Your task to perform on an android device: Open sound settings Image 0: 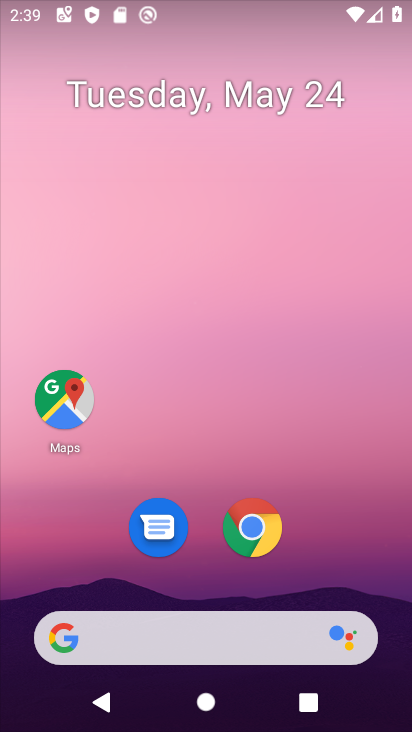
Step 0: drag from (258, 719) to (128, 196)
Your task to perform on an android device: Open sound settings Image 1: 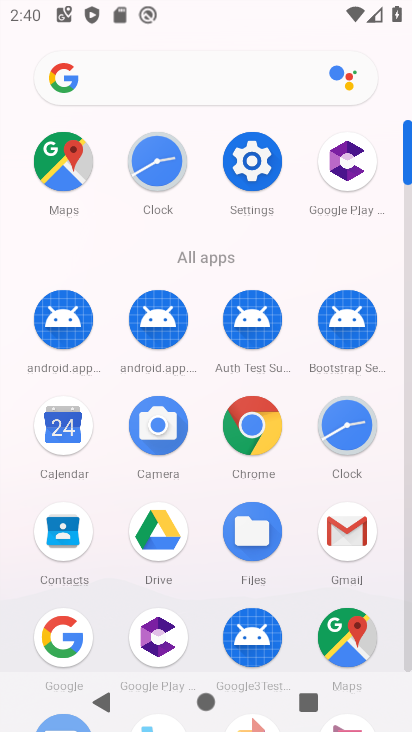
Step 1: click (259, 167)
Your task to perform on an android device: Open sound settings Image 2: 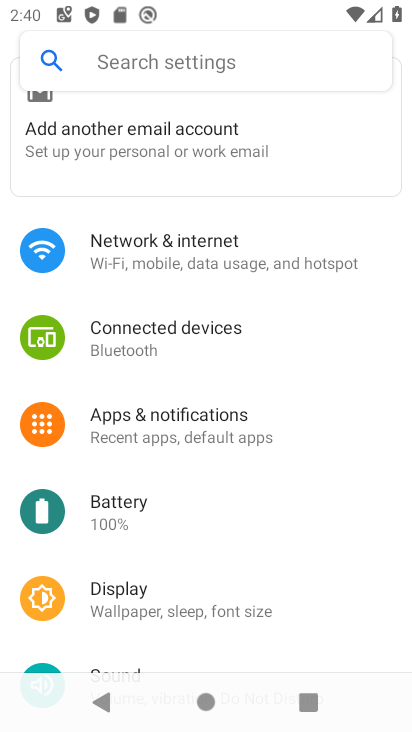
Step 2: drag from (143, 509) to (117, 288)
Your task to perform on an android device: Open sound settings Image 3: 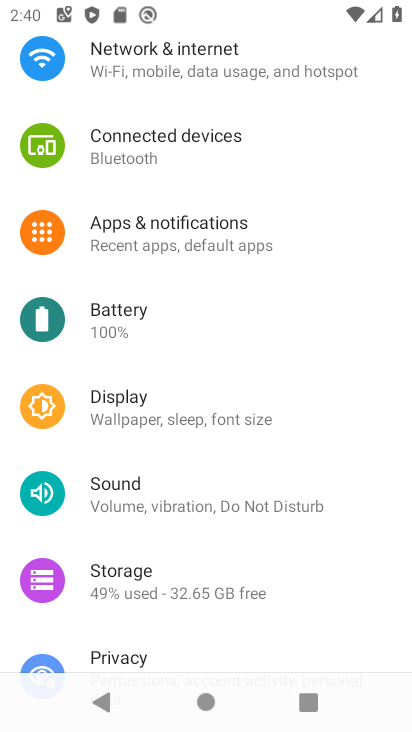
Step 3: drag from (156, 463) to (156, 182)
Your task to perform on an android device: Open sound settings Image 4: 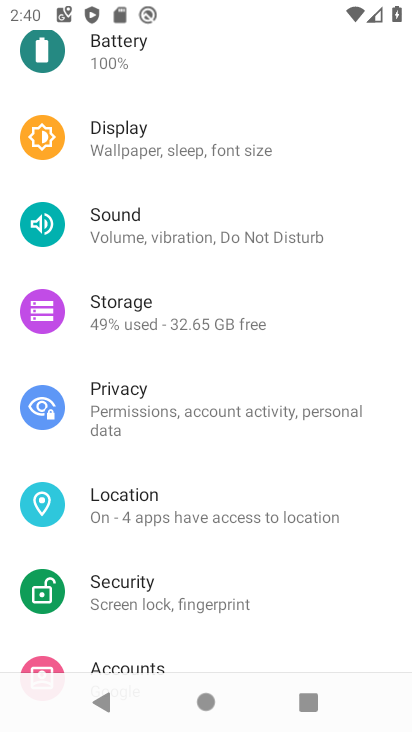
Step 4: drag from (147, 467) to (122, 214)
Your task to perform on an android device: Open sound settings Image 5: 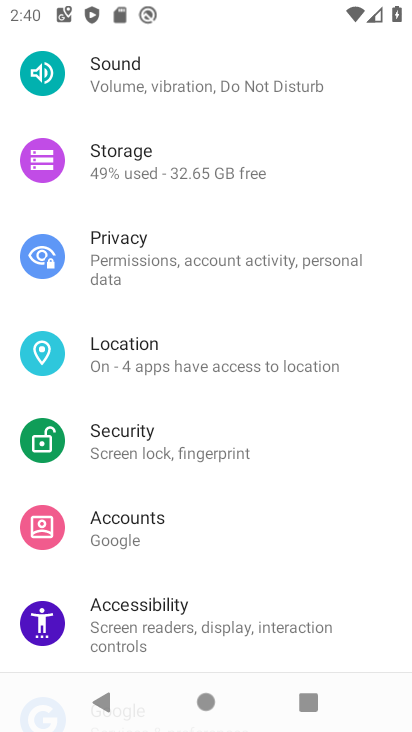
Step 5: drag from (216, 483) to (216, 176)
Your task to perform on an android device: Open sound settings Image 6: 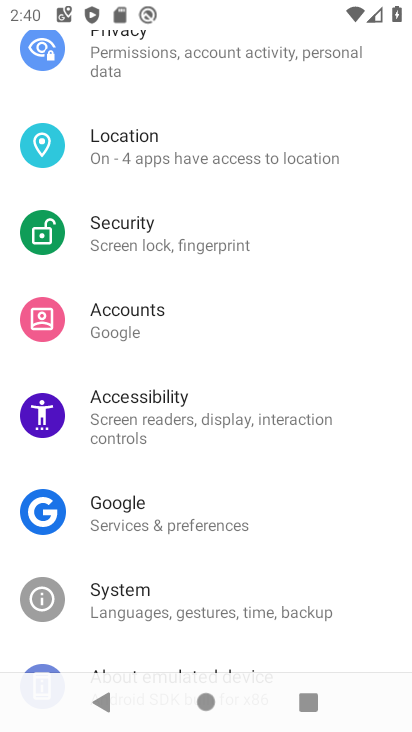
Step 6: click (117, 181)
Your task to perform on an android device: Open sound settings Image 7: 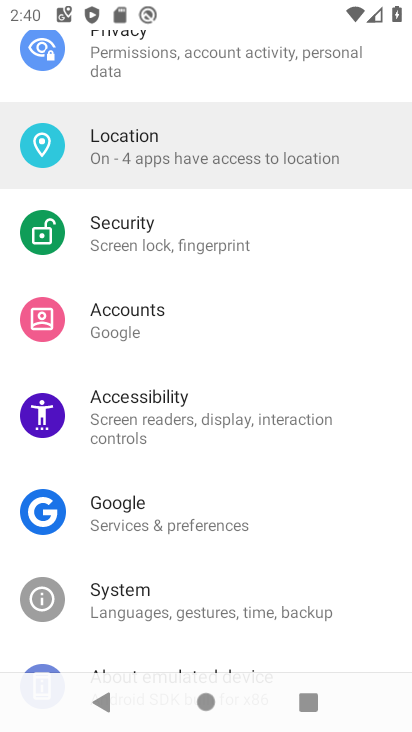
Step 7: drag from (137, 396) to (102, 137)
Your task to perform on an android device: Open sound settings Image 8: 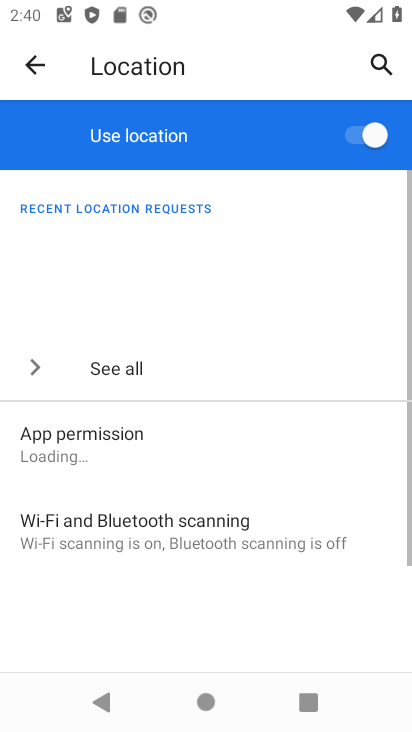
Step 8: drag from (168, 408) to (158, 76)
Your task to perform on an android device: Open sound settings Image 9: 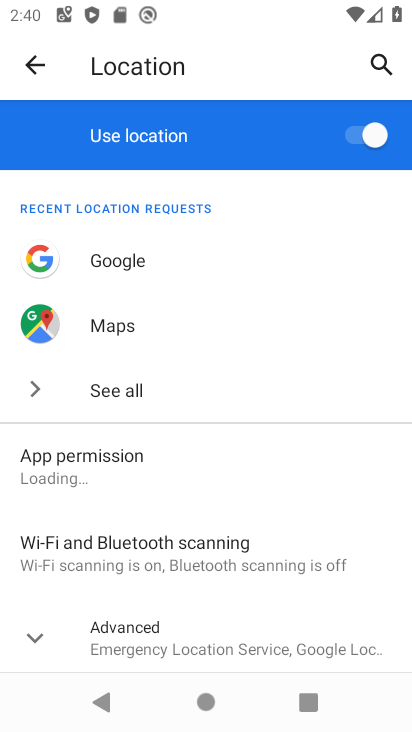
Step 9: press back button
Your task to perform on an android device: Open sound settings Image 10: 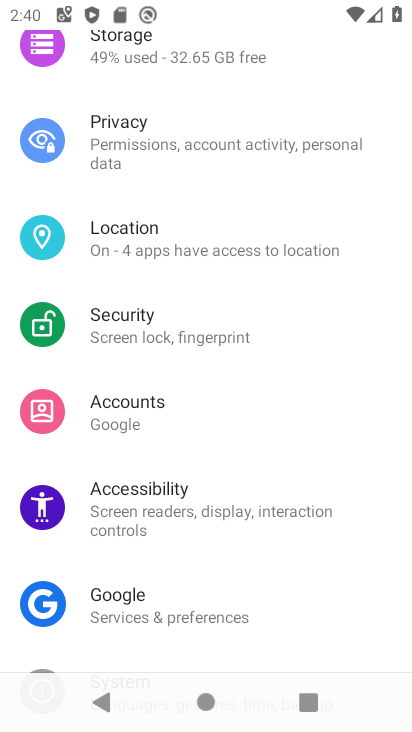
Step 10: drag from (112, 211) to (112, 615)
Your task to perform on an android device: Open sound settings Image 11: 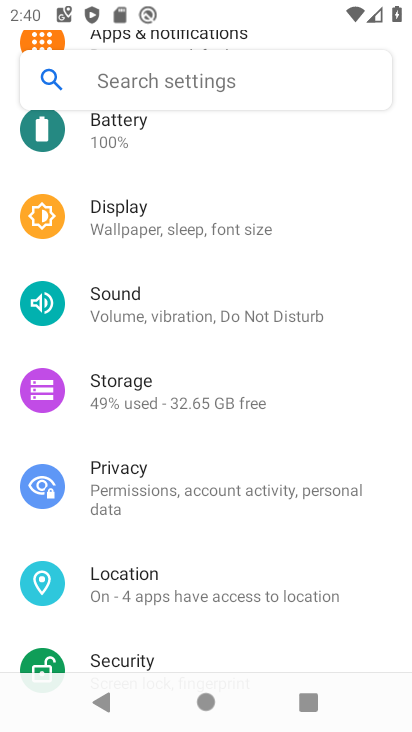
Step 11: drag from (135, 266) to (163, 582)
Your task to perform on an android device: Open sound settings Image 12: 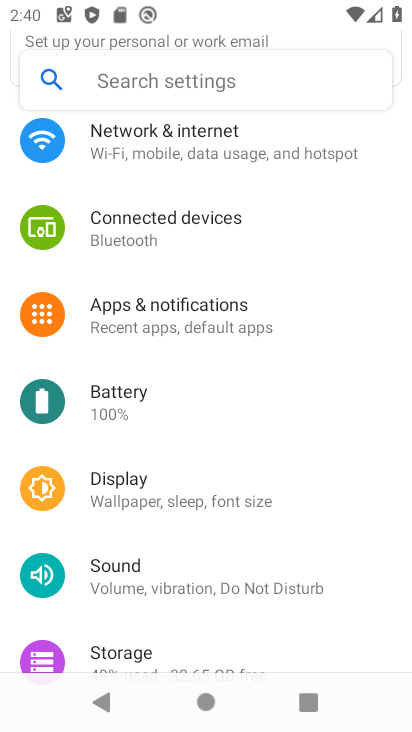
Step 12: click (123, 574)
Your task to perform on an android device: Open sound settings Image 13: 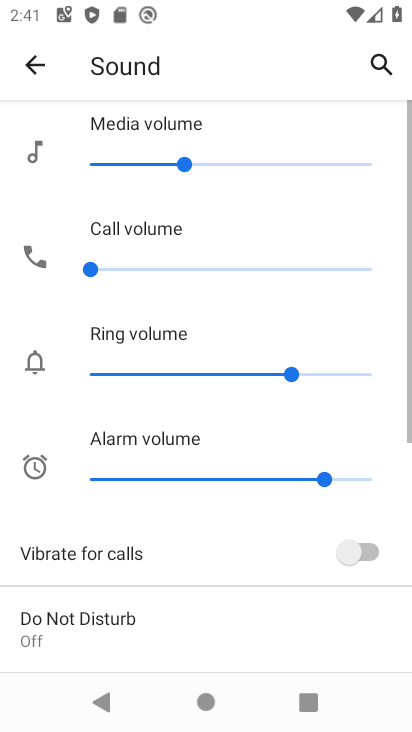
Step 13: task complete